Your task to perform on an android device: toggle javascript in the chrome app Image 0: 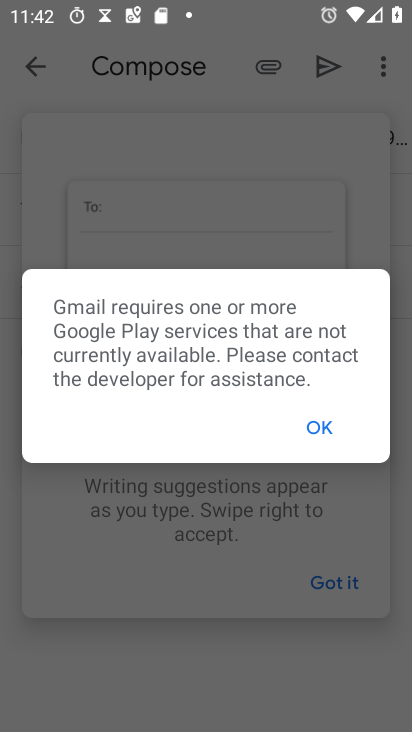
Step 0: press home button
Your task to perform on an android device: toggle javascript in the chrome app Image 1: 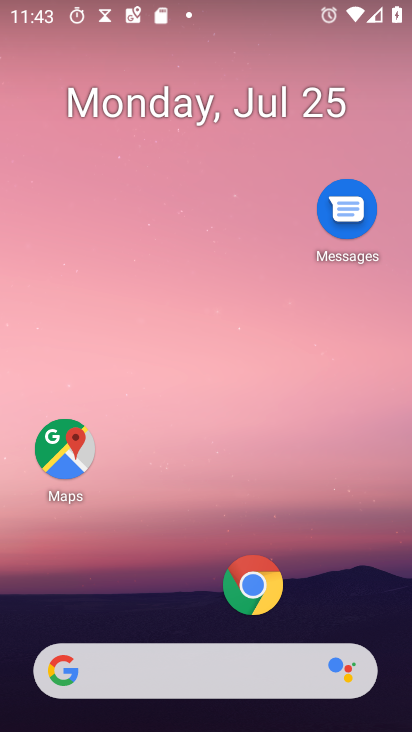
Step 1: click (257, 593)
Your task to perform on an android device: toggle javascript in the chrome app Image 2: 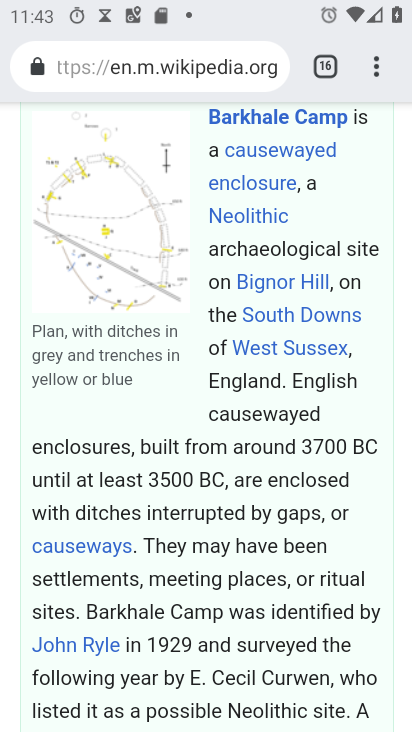
Step 2: drag from (378, 71) to (240, 586)
Your task to perform on an android device: toggle javascript in the chrome app Image 3: 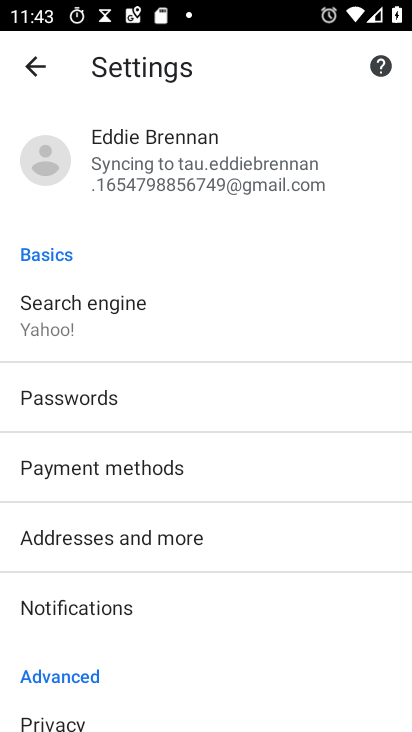
Step 3: drag from (189, 669) to (304, 247)
Your task to perform on an android device: toggle javascript in the chrome app Image 4: 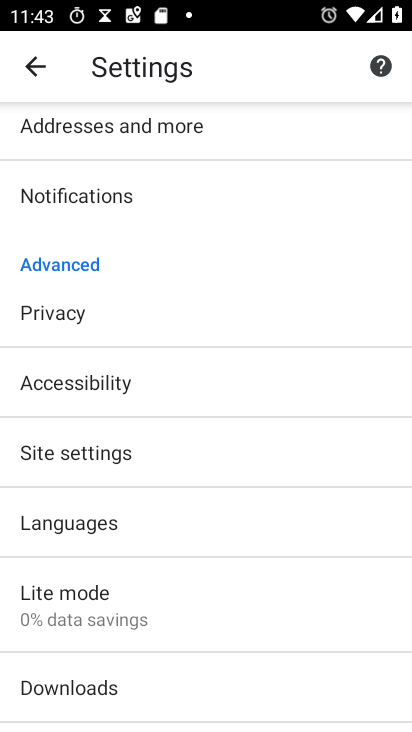
Step 4: click (83, 463)
Your task to perform on an android device: toggle javascript in the chrome app Image 5: 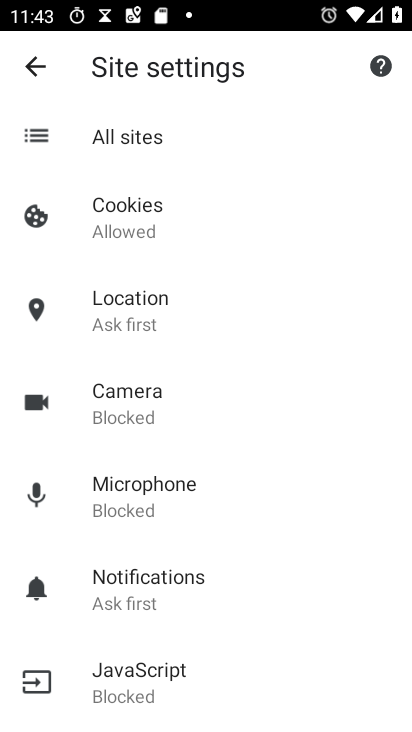
Step 5: drag from (207, 649) to (273, 354)
Your task to perform on an android device: toggle javascript in the chrome app Image 6: 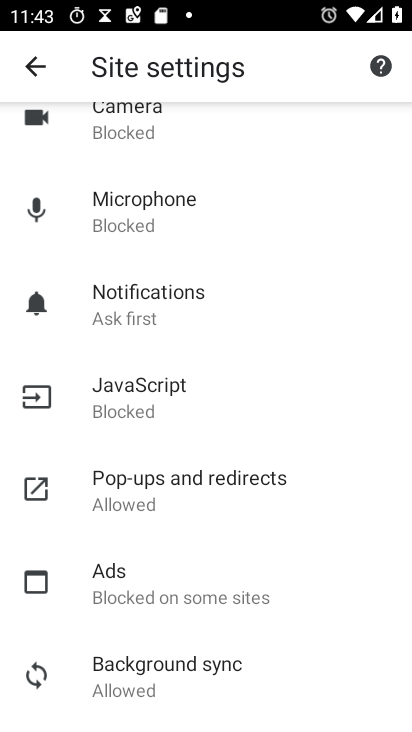
Step 6: click (156, 408)
Your task to perform on an android device: toggle javascript in the chrome app Image 7: 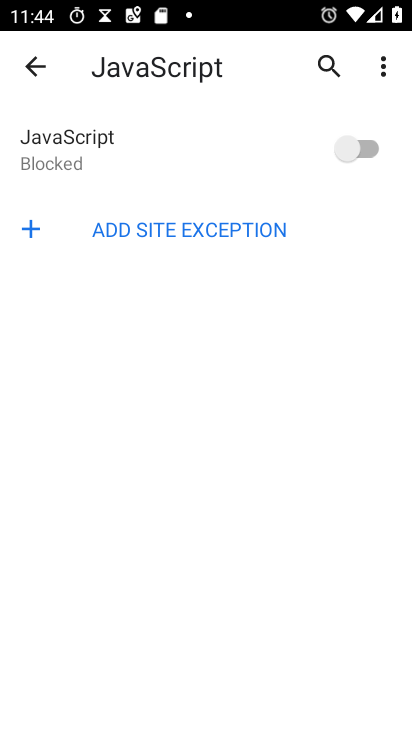
Step 7: click (366, 147)
Your task to perform on an android device: toggle javascript in the chrome app Image 8: 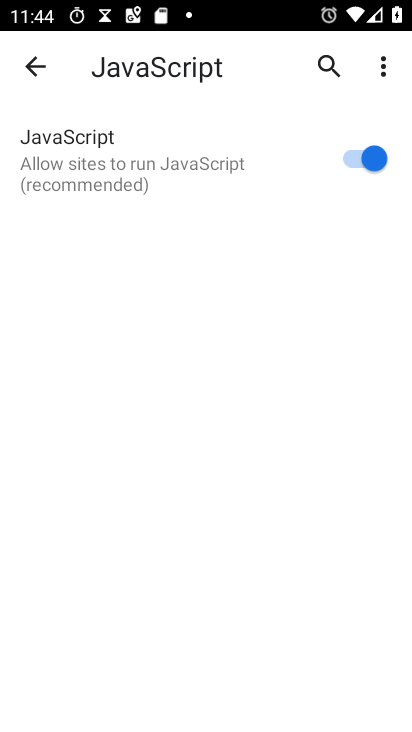
Step 8: task complete